Your task to perform on an android device: Open calendar and show me the first week of next month Image 0: 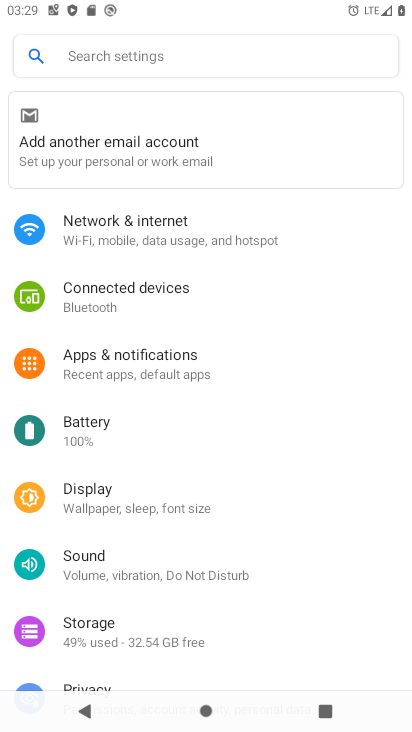
Step 0: press home button
Your task to perform on an android device: Open calendar and show me the first week of next month Image 1: 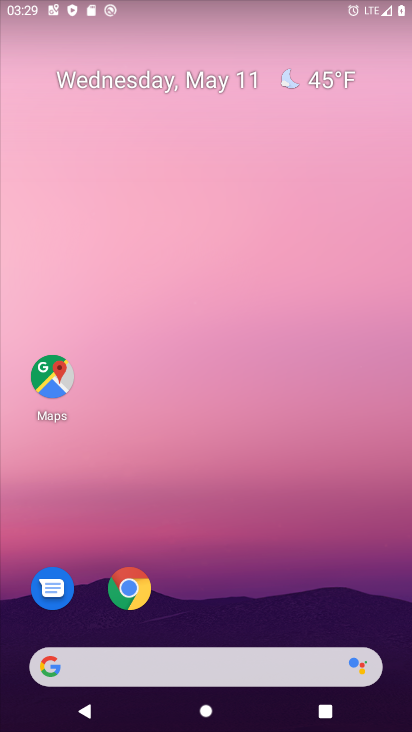
Step 1: drag from (226, 594) to (205, 152)
Your task to perform on an android device: Open calendar and show me the first week of next month Image 2: 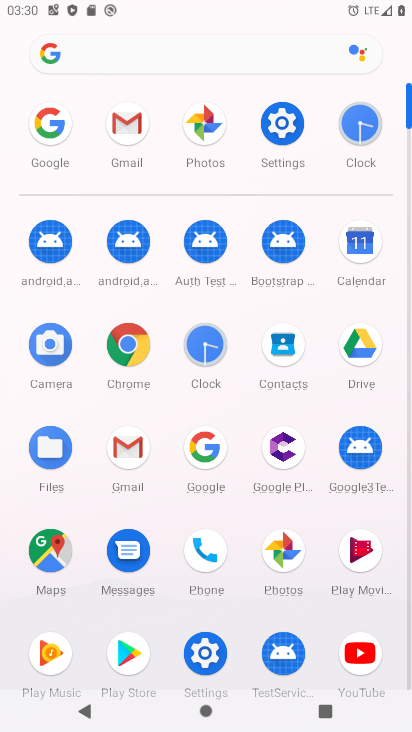
Step 2: click (343, 242)
Your task to perform on an android device: Open calendar and show me the first week of next month Image 3: 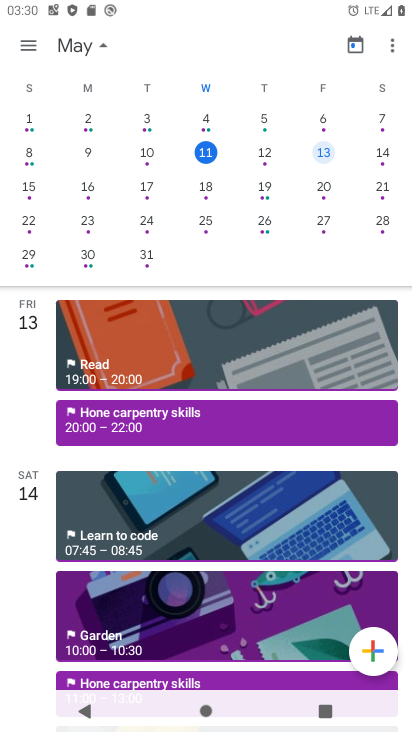
Step 3: click (94, 53)
Your task to perform on an android device: Open calendar and show me the first week of next month Image 4: 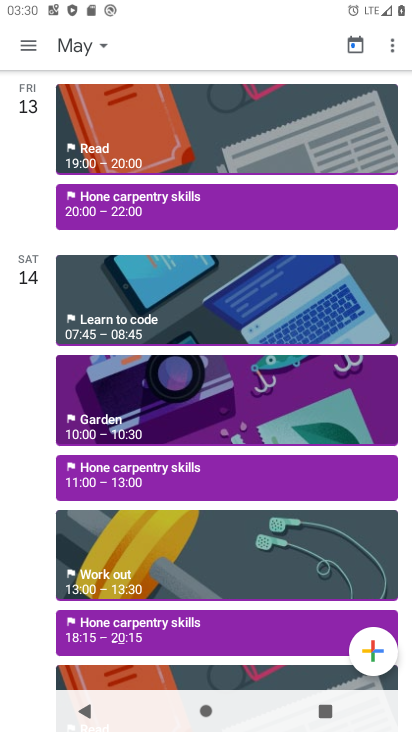
Step 4: click (99, 50)
Your task to perform on an android device: Open calendar and show me the first week of next month Image 5: 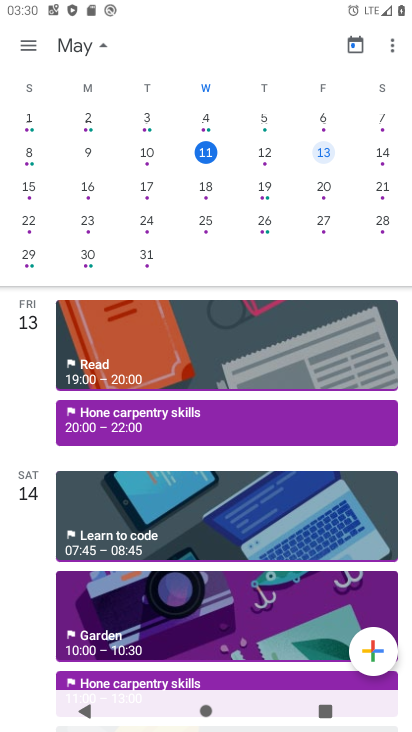
Step 5: drag from (307, 179) to (84, 137)
Your task to perform on an android device: Open calendar and show me the first week of next month Image 6: 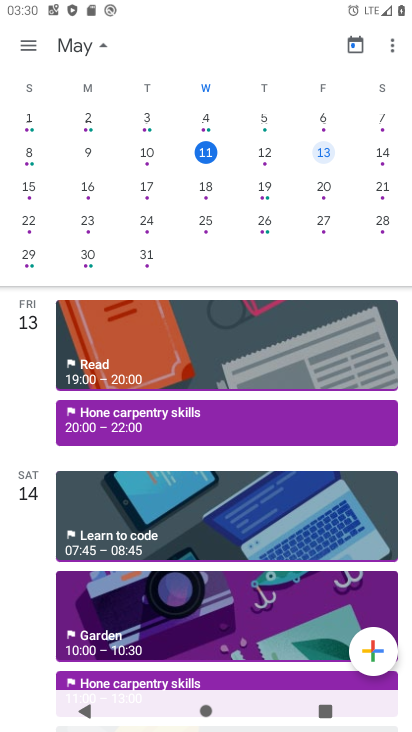
Step 6: drag from (351, 163) to (19, 150)
Your task to perform on an android device: Open calendar and show me the first week of next month Image 7: 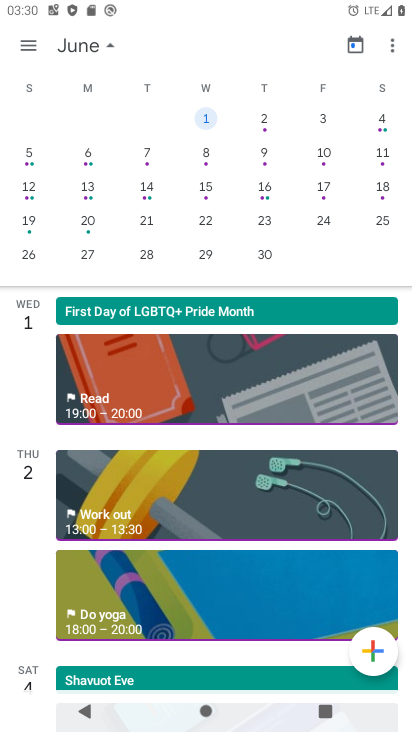
Step 7: click (203, 122)
Your task to perform on an android device: Open calendar and show me the first week of next month Image 8: 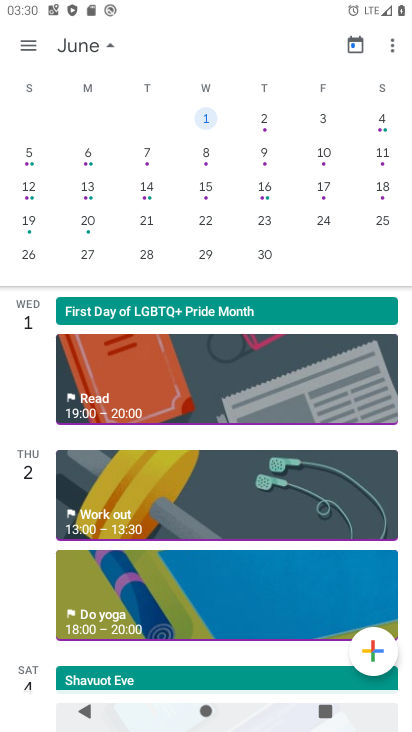
Step 8: click (272, 121)
Your task to perform on an android device: Open calendar and show me the first week of next month Image 9: 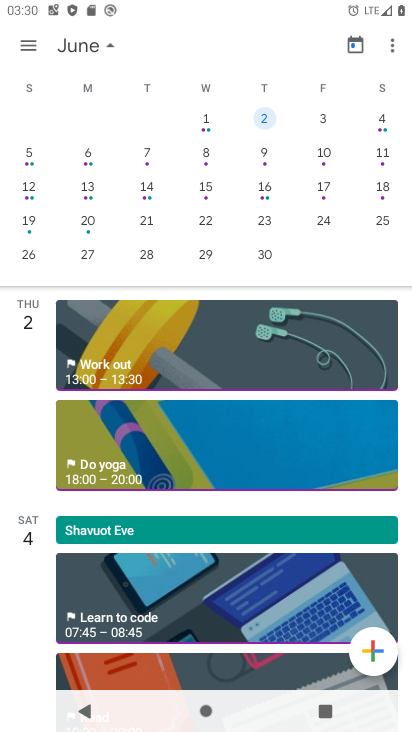
Step 9: click (220, 116)
Your task to perform on an android device: Open calendar and show me the first week of next month Image 10: 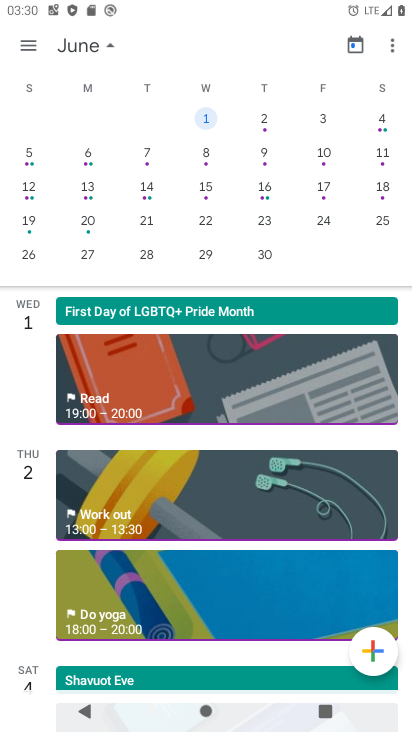
Step 10: click (220, 116)
Your task to perform on an android device: Open calendar and show me the first week of next month Image 11: 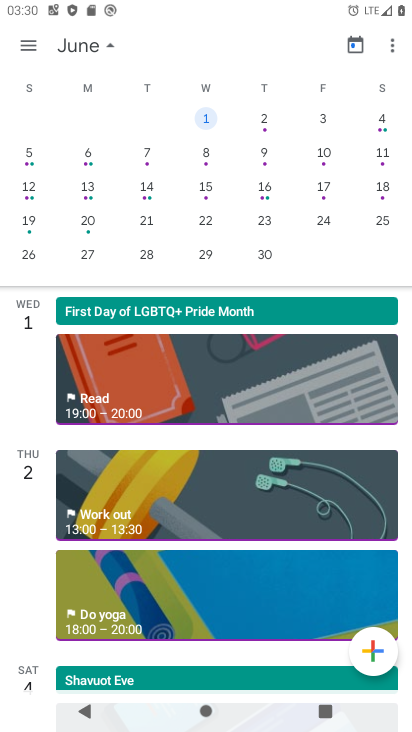
Step 11: click (272, 120)
Your task to perform on an android device: Open calendar and show me the first week of next month Image 12: 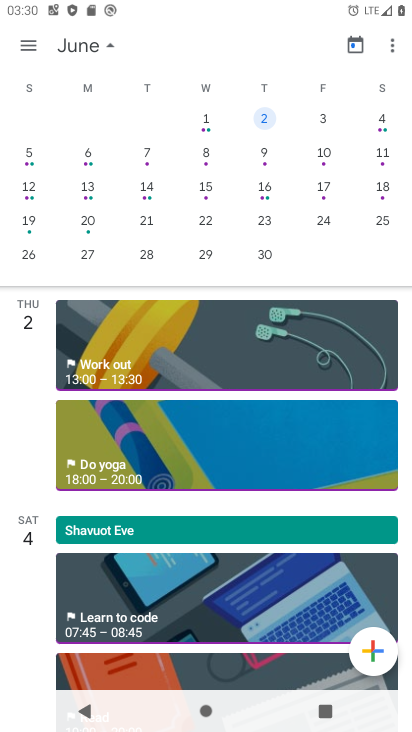
Step 12: click (323, 125)
Your task to perform on an android device: Open calendar and show me the first week of next month Image 13: 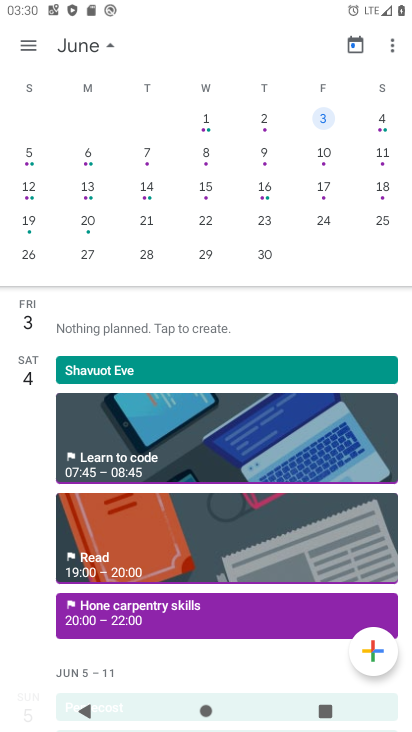
Step 13: click (345, 129)
Your task to perform on an android device: Open calendar and show me the first week of next month Image 14: 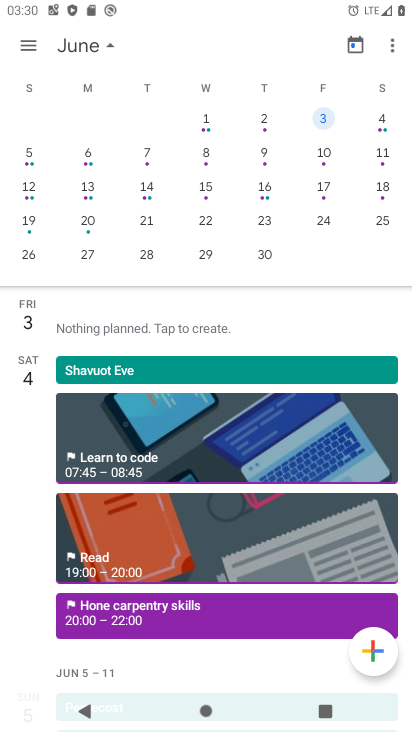
Step 14: click (374, 132)
Your task to perform on an android device: Open calendar and show me the first week of next month Image 15: 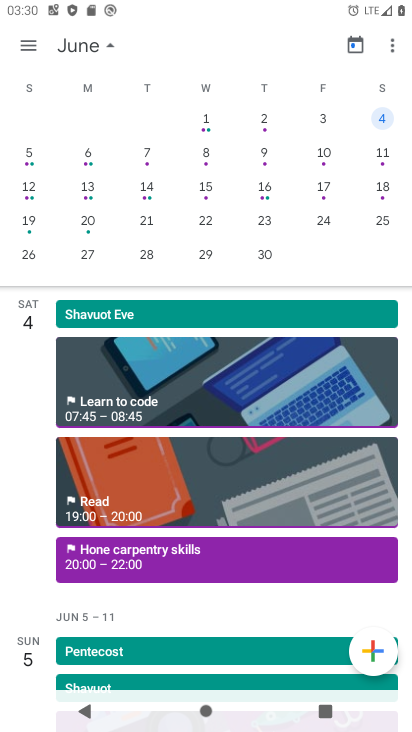
Step 15: task complete